Your task to perform on an android device: toggle location history Image 0: 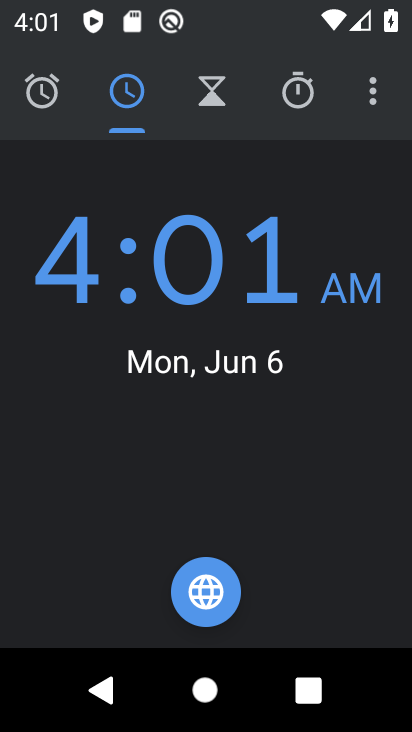
Step 0: press home button
Your task to perform on an android device: toggle location history Image 1: 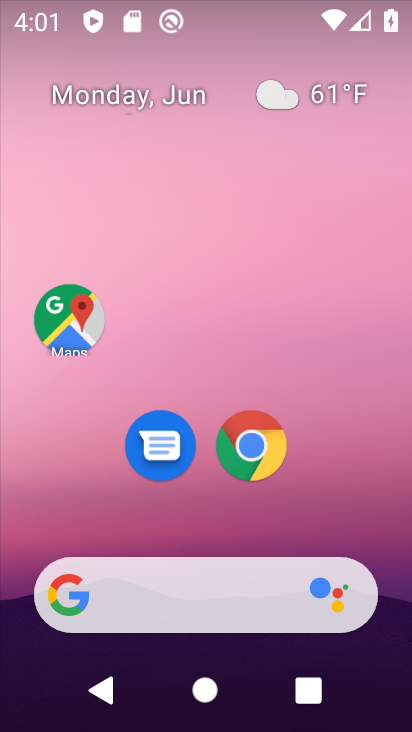
Step 1: drag from (195, 535) to (203, 114)
Your task to perform on an android device: toggle location history Image 2: 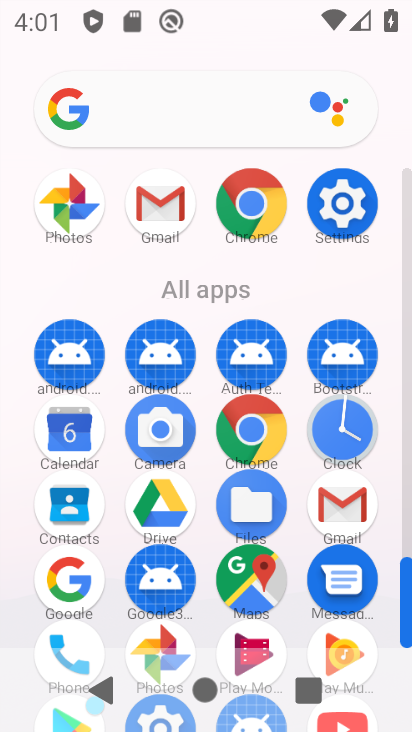
Step 2: click (345, 201)
Your task to perform on an android device: toggle location history Image 3: 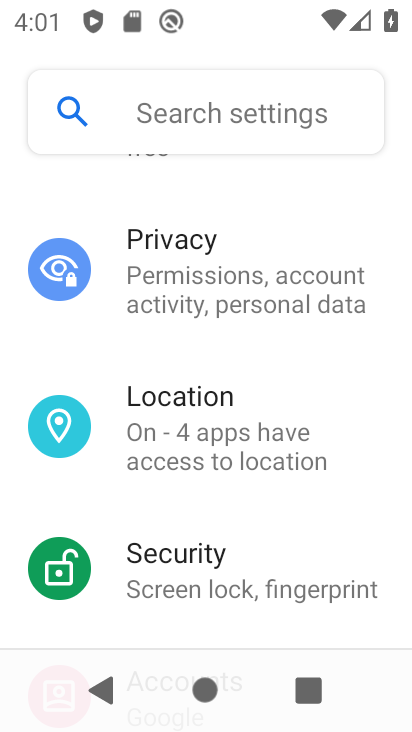
Step 3: click (158, 452)
Your task to perform on an android device: toggle location history Image 4: 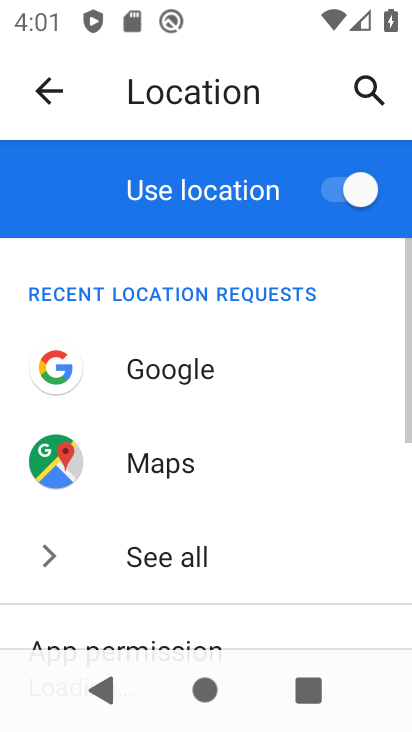
Step 4: drag from (175, 573) to (197, 276)
Your task to perform on an android device: toggle location history Image 5: 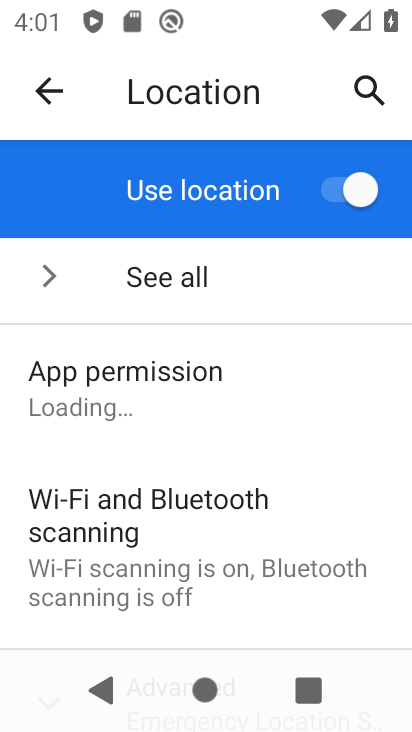
Step 5: drag from (167, 539) to (169, 265)
Your task to perform on an android device: toggle location history Image 6: 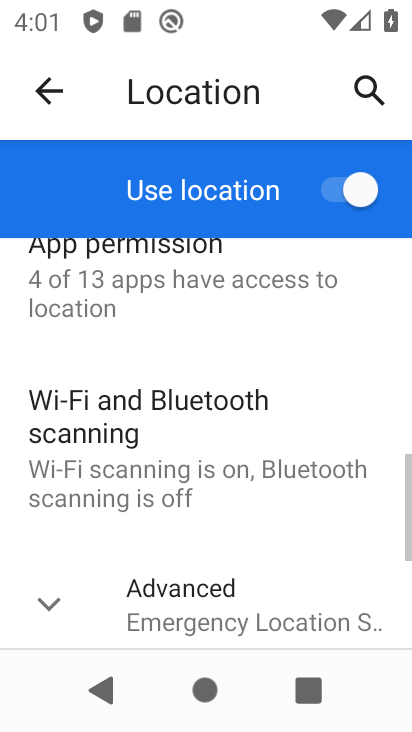
Step 6: click (110, 618)
Your task to perform on an android device: toggle location history Image 7: 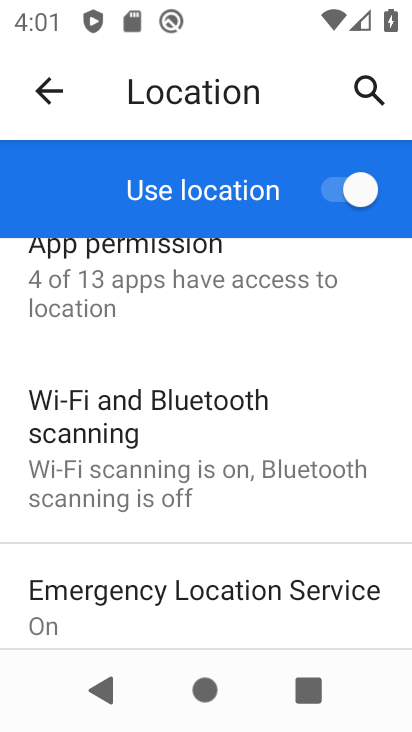
Step 7: drag from (172, 595) to (159, 362)
Your task to perform on an android device: toggle location history Image 8: 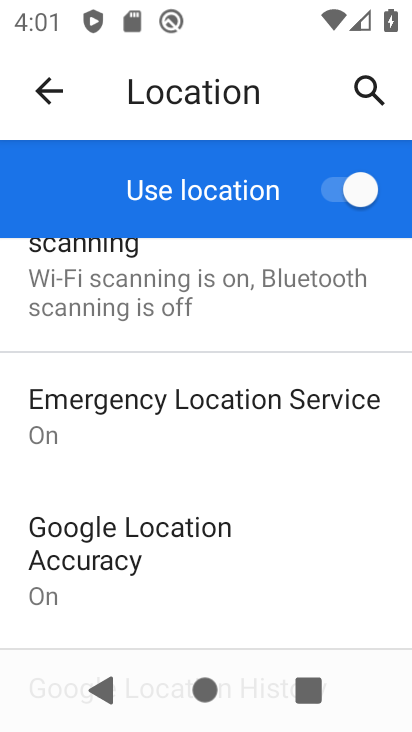
Step 8: drag from (150, 562) to (161, 341)
Your task to perform on an android device: toggle location history Image 9: 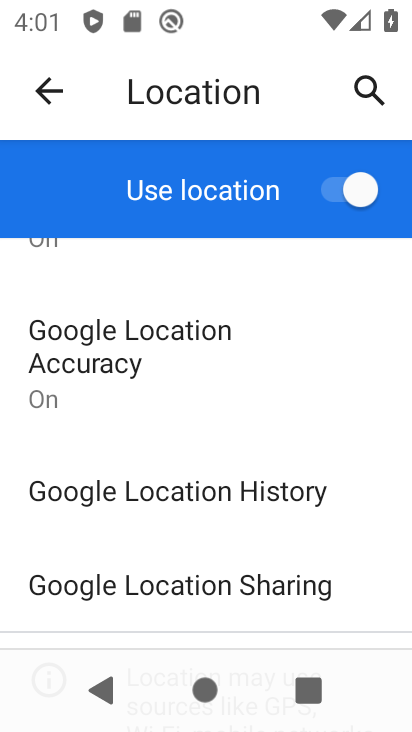
Step 9: click (212, 494)
Your task to perform on an android device: toggle location history Image 10: 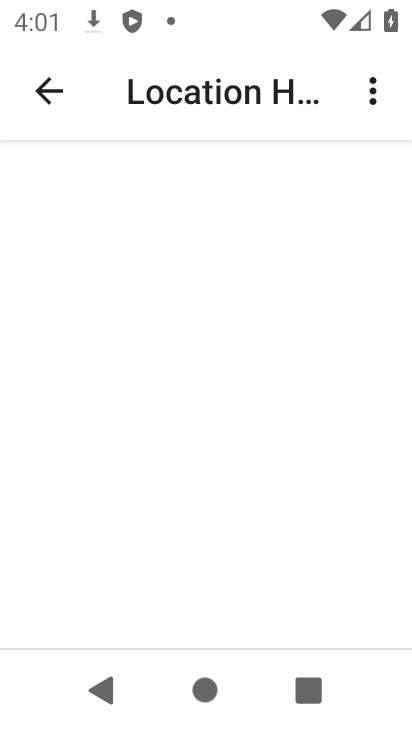
Step 10: click (223, 379)
Your task to perform on an android device: toggle location history Image 11: 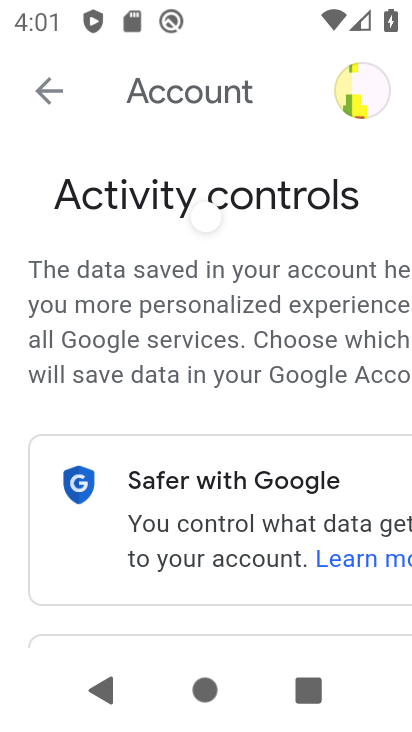
Step 11: drag from (219, 594) to (222, 327)
Your task to perform on an android device: toggle location history Image 12: 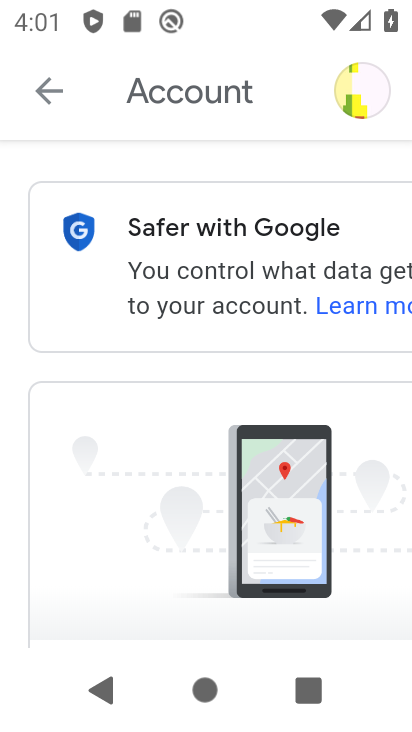
Step 12: drag from (248, 533) to (251, 204)
Your task to perform on an android device: toggle location history Image 13: 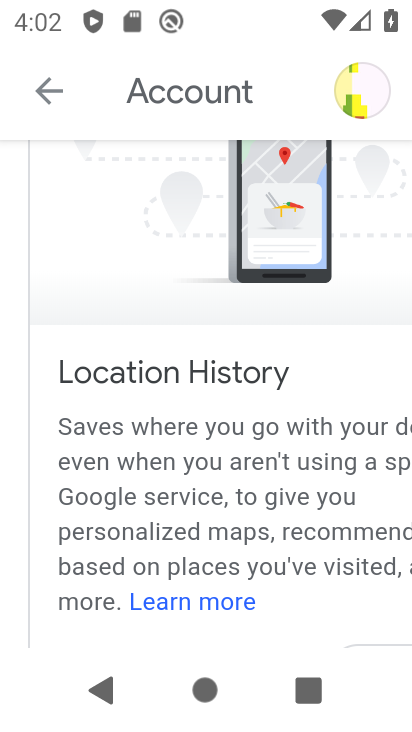
Step 13: drag from (264, 538) to (260, 223)
Your task to perform on an android device: toggle location history Image 14: 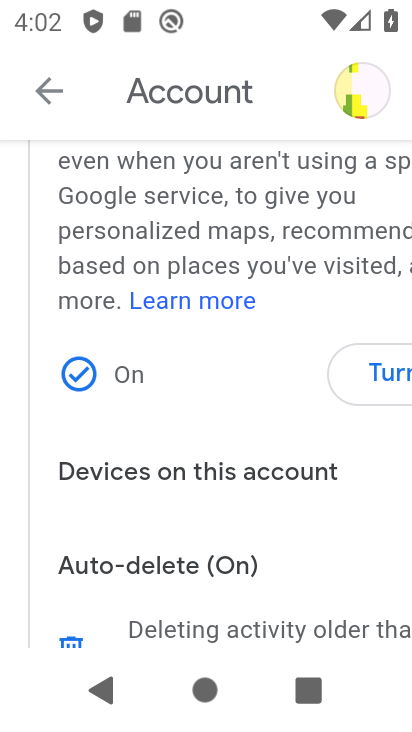
Step 14: click (357, 371)
Your task to perform on an android device: toggle location history Image 15: 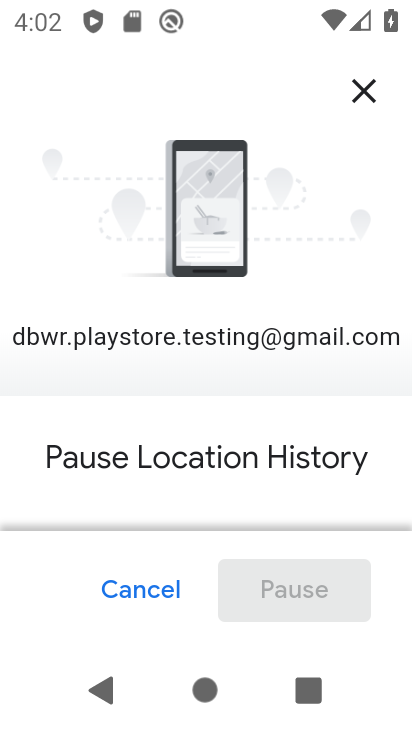
Step 15: drag from (228, 501) to (238, 229)
Your task to perform on an android device: toggle location history Image 16: 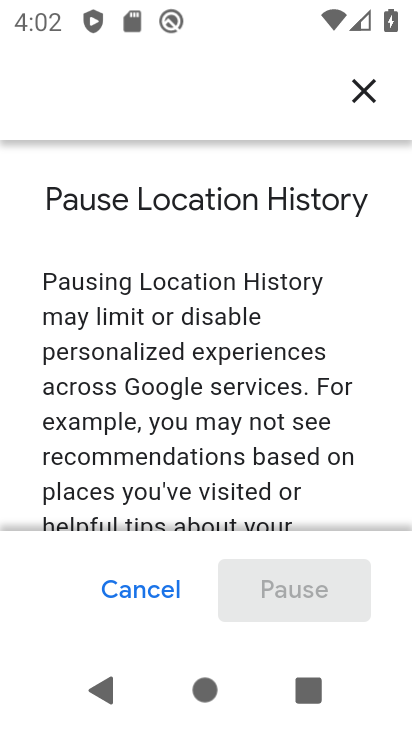
Step 16: drag from (301, 500) to (305, 193)
Your task to perform on an android device: toggle location history Image 17: 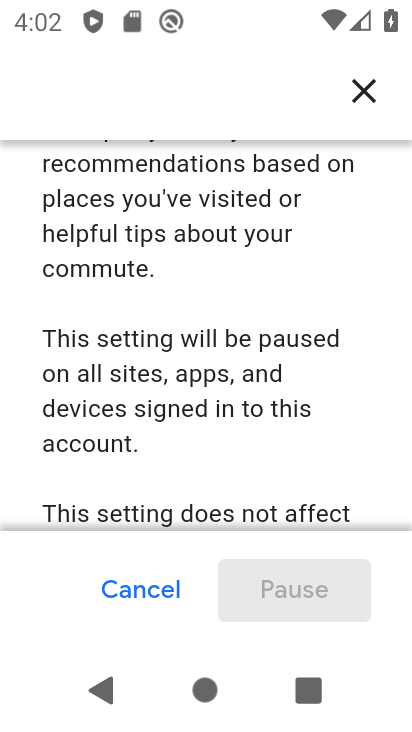
Step 17: drag from (314, 459) to (320, 125)
Your task to perform on an android device: toggle location history Image 18: 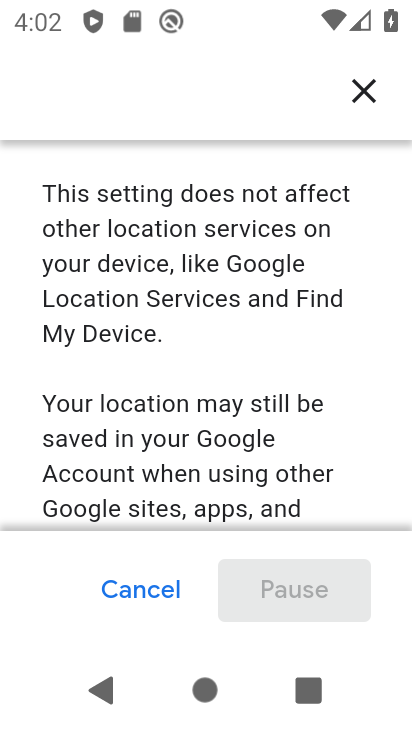
Step 18: drag from (266, 440) to (284, 122)
Your task to perform on an android device: toggle location history Image 19: 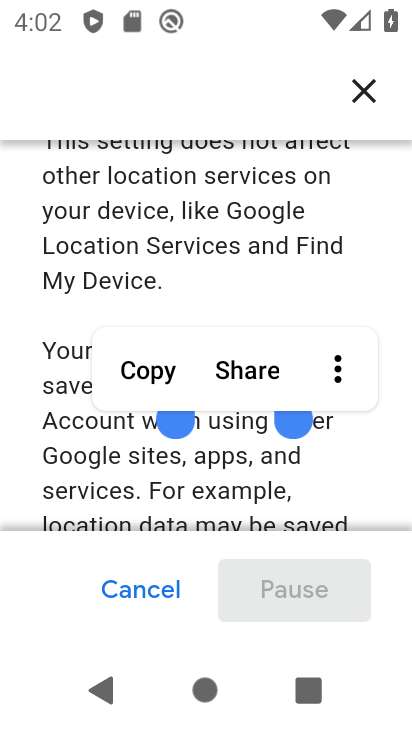
Step 19: drag from (331, 465) to (316, 198)
Your task to perform on an android device: toggle location history Image 20: 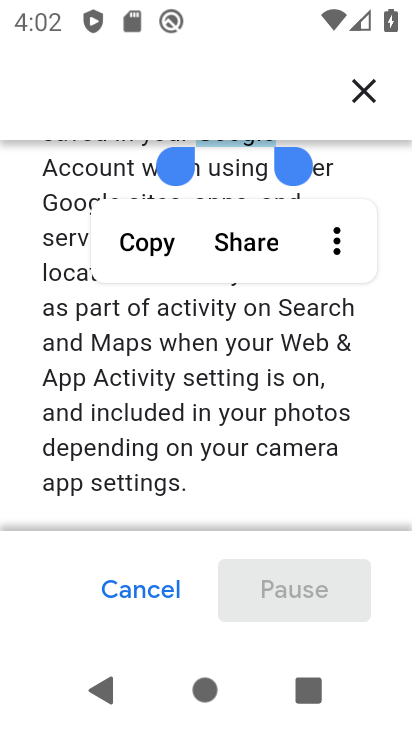
Step 20: drag from (264, 488) to (256, 174)
Your task to perform on an android device: toggle location history Image 21: 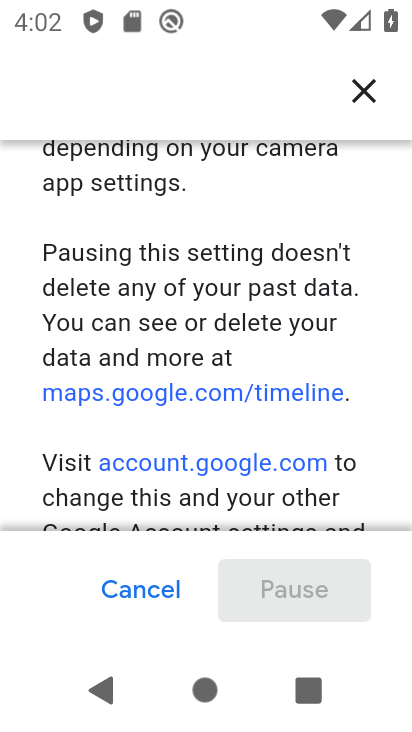
Step 21: drag from (242, 451) to (241, 93)
Your task to perform on an android device: toggle location history Image 22: 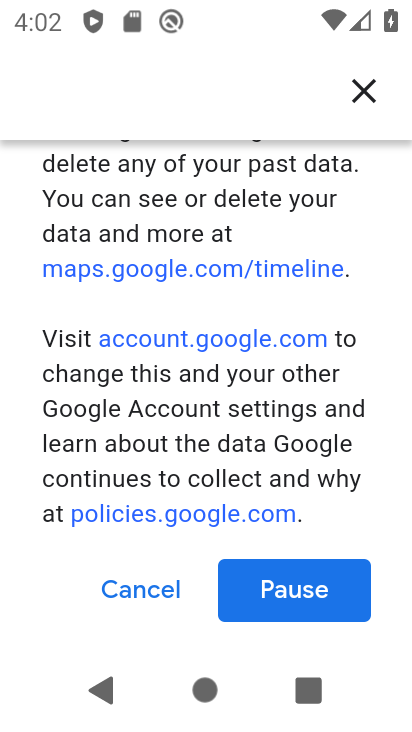
Step 22: click (273, 590)
Your task to perform on an android device: toggle location history Image 23: 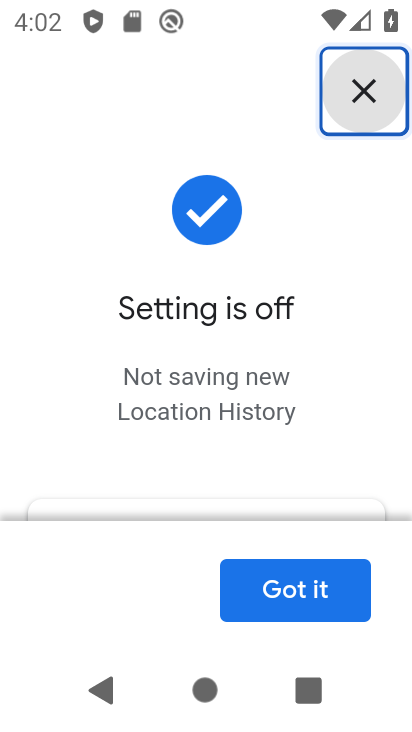
Step 23: click (273, 590)
Your task to perform on an android device: toggle location history Image 24: 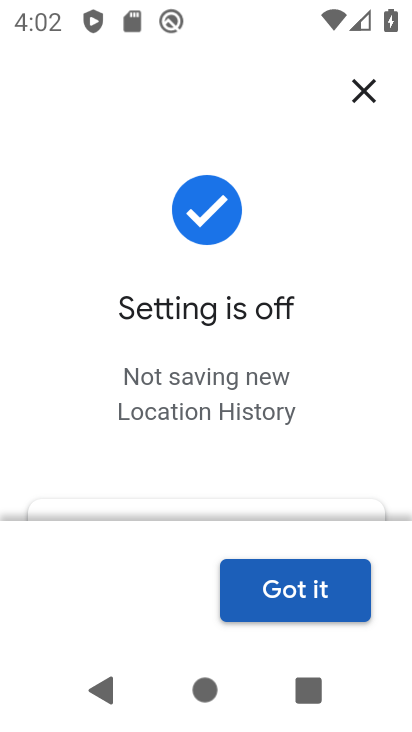
Step 24: click (273, 590)
Your task to perform on an android device: toggle location history Image 25: 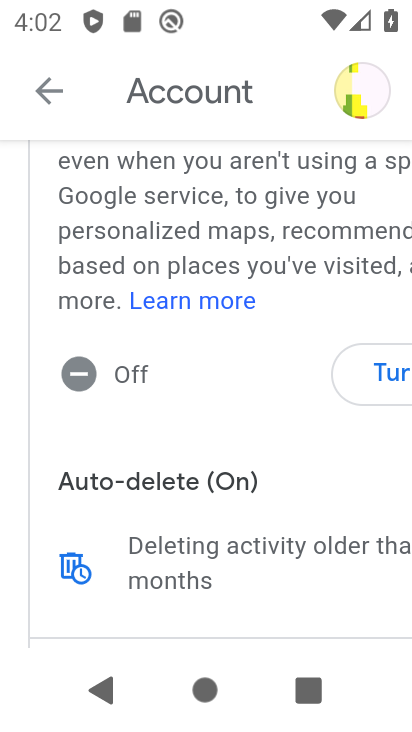
Step 25: task complete